Your task to perform on an android device: Set the phone to "Do not disturb". Image 0: 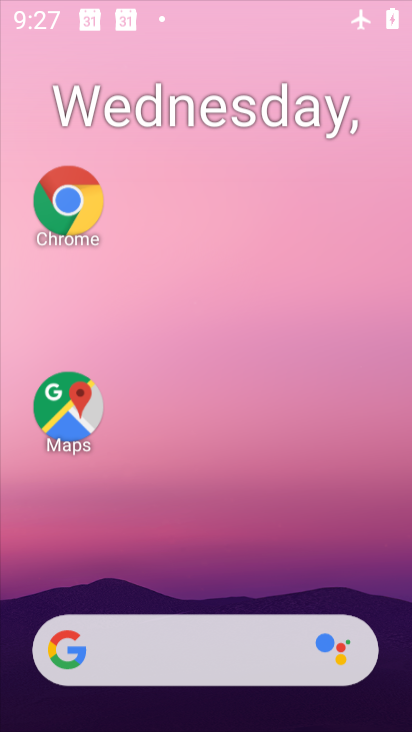
Step 0: click (169, 33)
Your task to perform on an android device: Set the phone to "Do not disturb". Image 1: 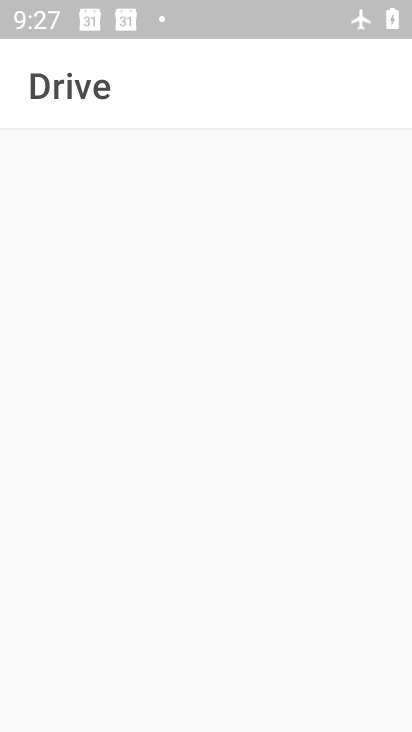
Step 1: press home button
Your task to perform on an android device: Set the phone to "Do not disturb". Image 2: 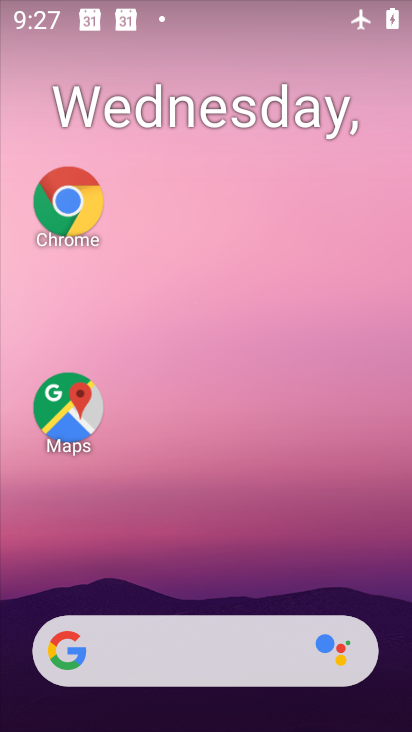
Step 2: drag from (219, 1) to (117, 644)
Your task to perform on an android device: Set the phone to "Do not disturb". Image 3: 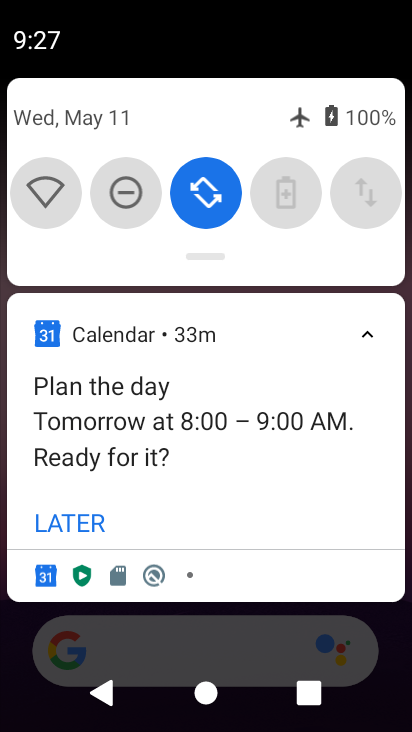
Step 3: click (121, 183)
Your task to perform on an android device: Set the phone to "Do not disturb". Image 4: 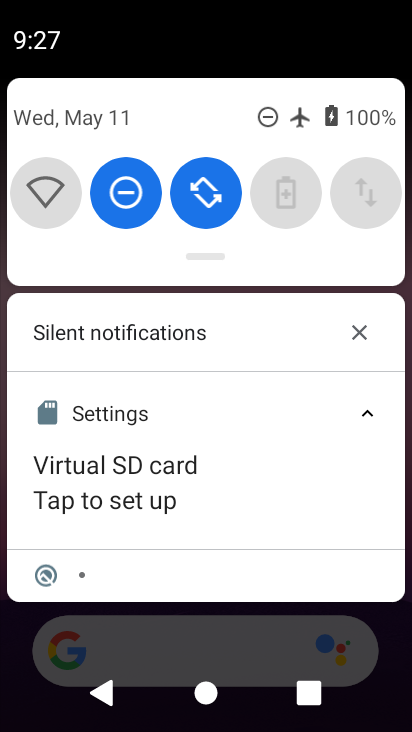
Step 4: task complete